Your task to perform on an android device: Open ESPN.com Image 0: 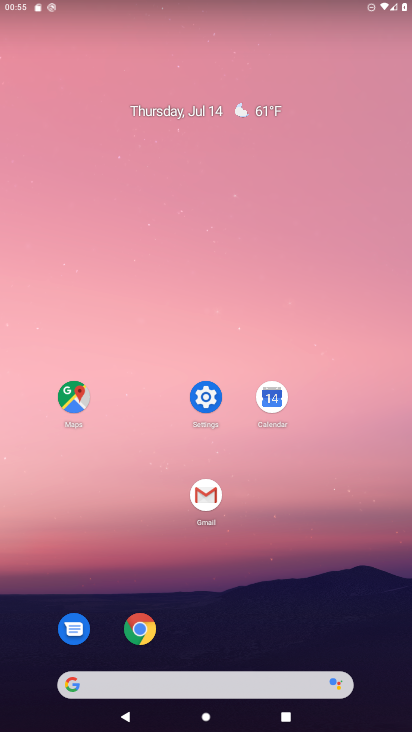
Step 0: click (153, 621)
Your task to perform on an android device: Open ESPN.com Image 1: 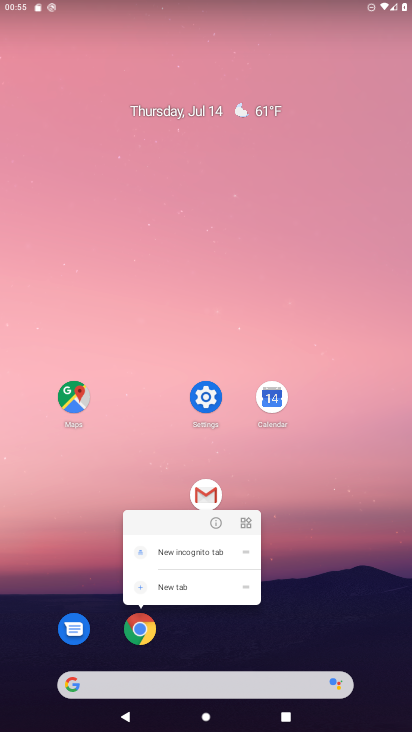
Step 1: click (135, 625)
Your task to perform on an android device: Open ESPN.com Image 2: 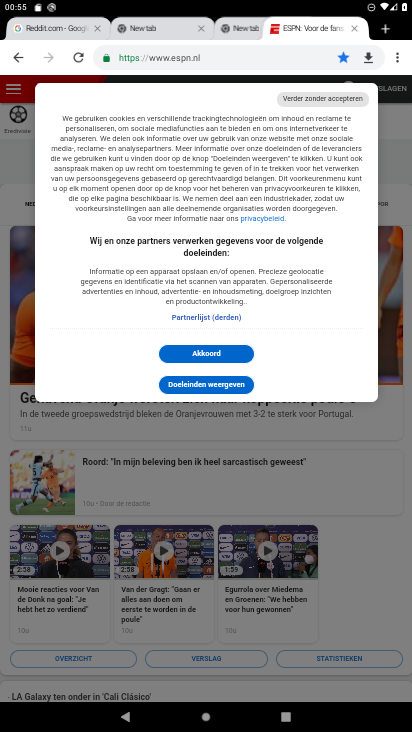
Step 2: press back button
Your task to perform on an android device: Open ESPN.com Image 3: 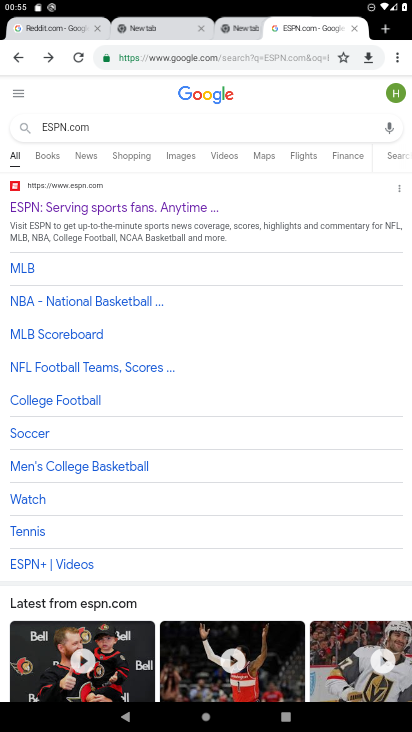
Step 3: click (331, 53)
Your task to perform on an android device: Open ESPN.com Image 4: 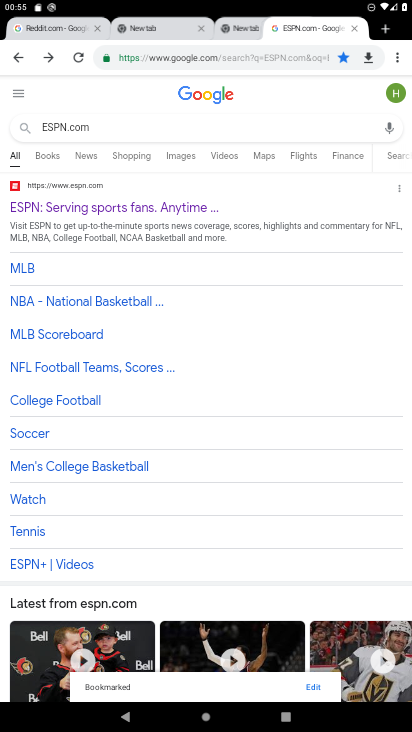
Step 4: click (321, 60)
Your task to perform on an android device: Open ESPN.com Image 5: 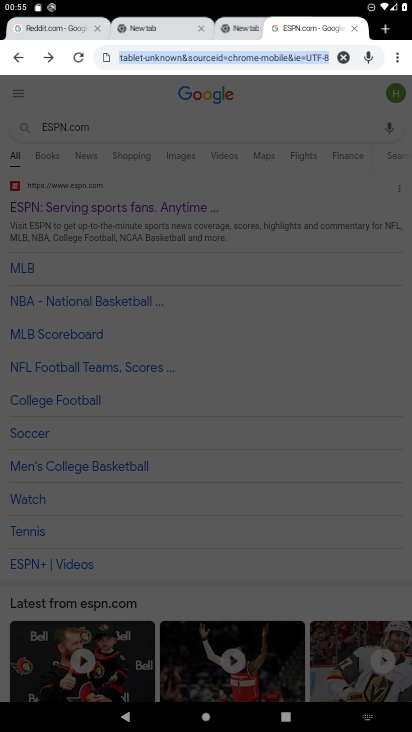
Step 5: click (348, 57)
Your task to perform on an android device: Open ESPN.com Image 6: 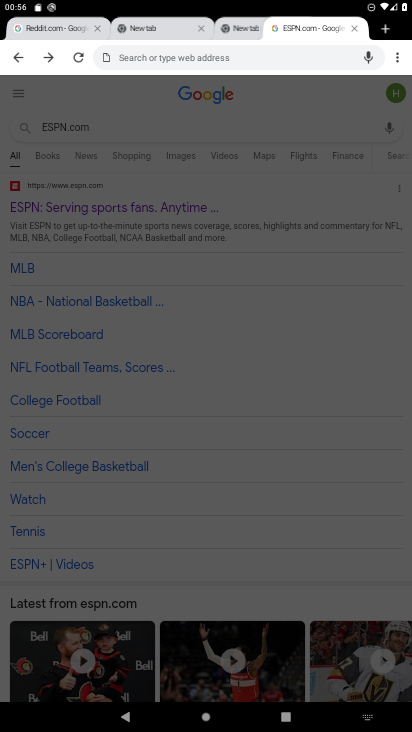
Step 6: type "ESPN.com"
Your task to perform on an android device: Open ESPN.com Image 7: 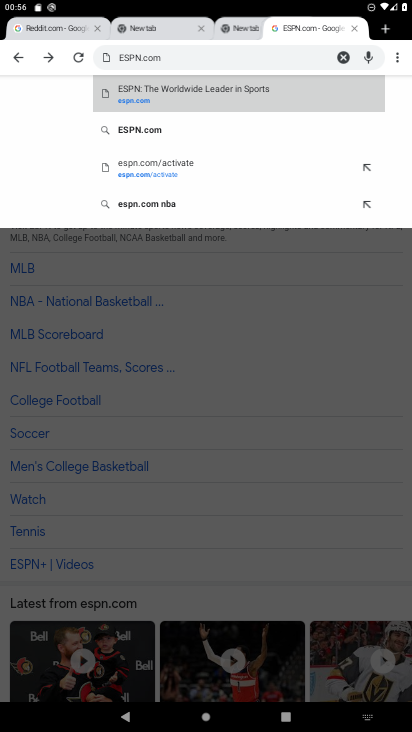
Step 7: click (116, 125)
Your task to perform on an android device: Open ESPN.com Image 8: 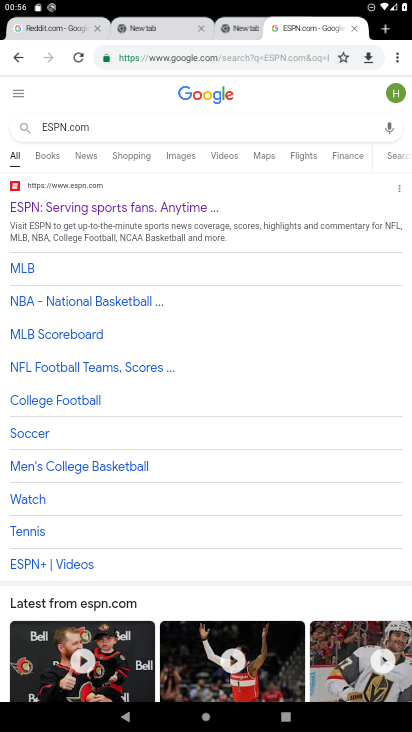
Step 8: task complete